Your task to perform on an android device: Do I have any events tomorrow? Image 0: 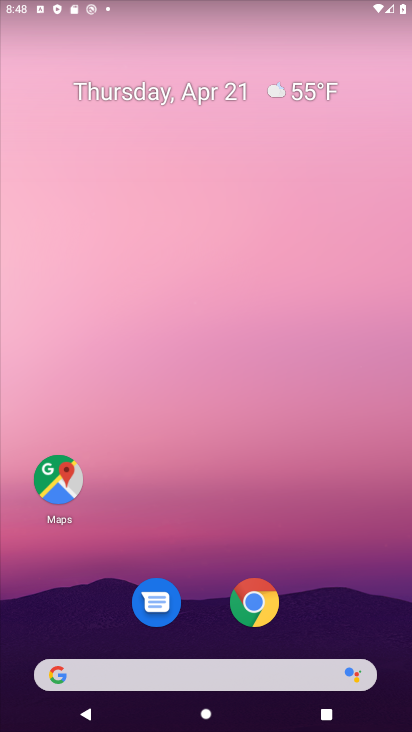
Step 0: click (144, 97)
Your task to perform on an android device: Do I have any events tomorrow? Image 1: 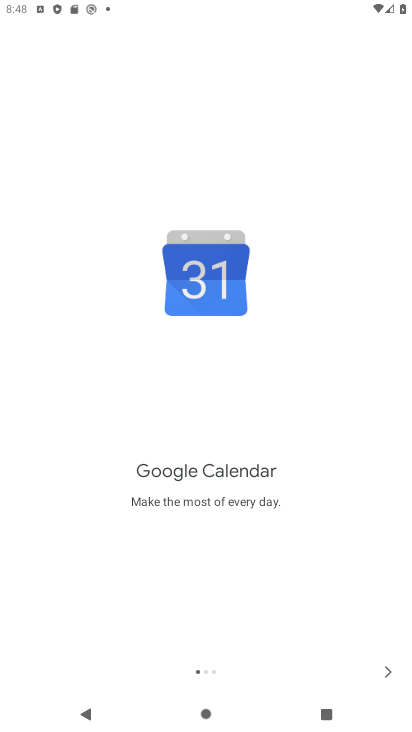
Step 1: click (391, 670)
Your task to perform on an android device: Do I have any events tomorrow? Image 2: 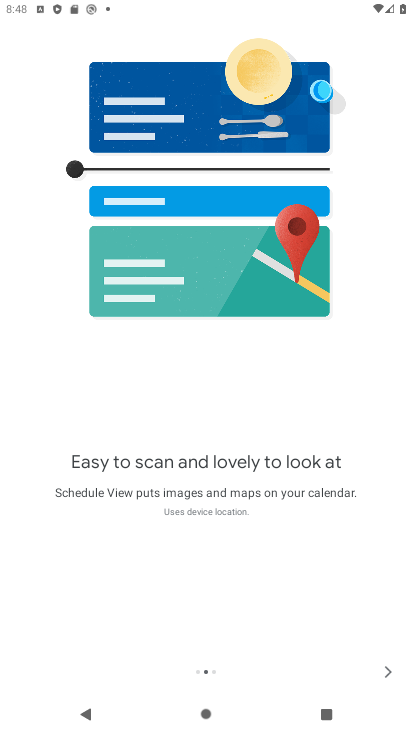
Step 2: click (391, 670)
Your task to perform on an android device: Do I have any events tomorrow? Image 3: 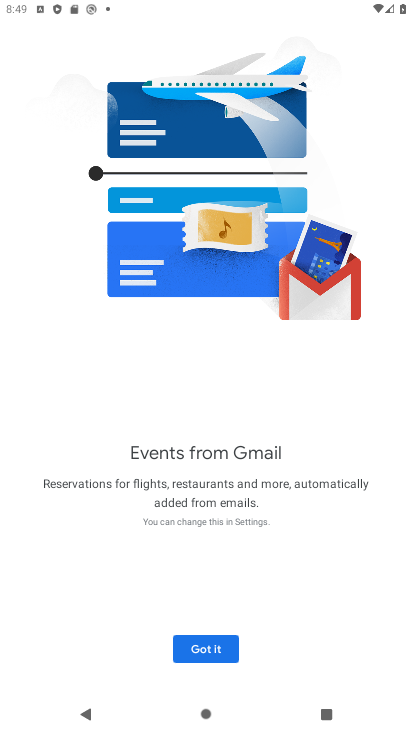
Step 3: click (214, 649)
Your task to perform on an android device: Do I have any events tomorrow? Image 4: 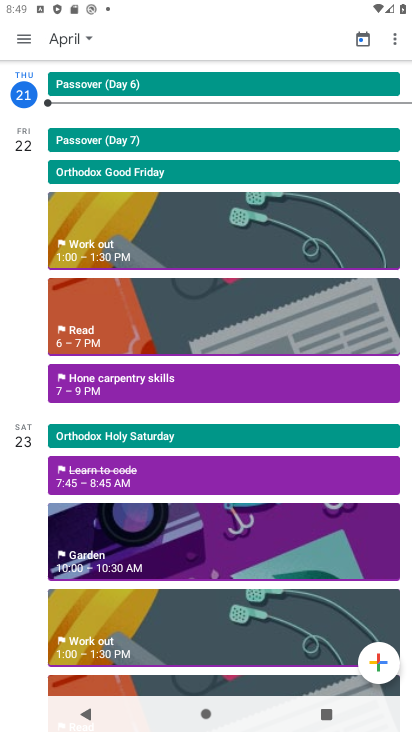
Step 4: click (169, 380)
Your task to perform on an android device: Do I have any events tomorrow? Image 5: 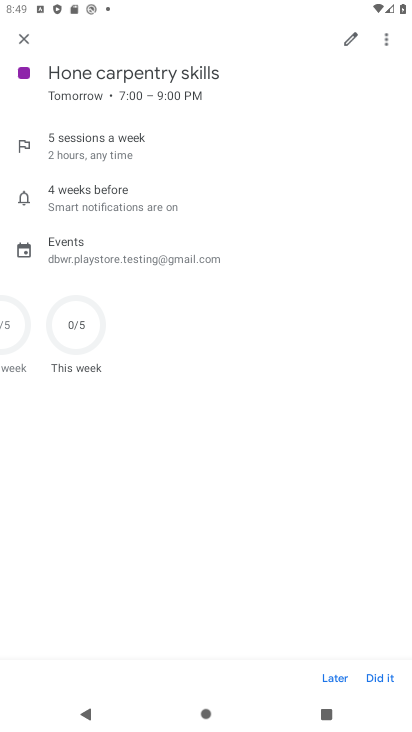
Step 5: task complete